Your task to perform on an android device: Is it going to rain tomorrow? Image 0: 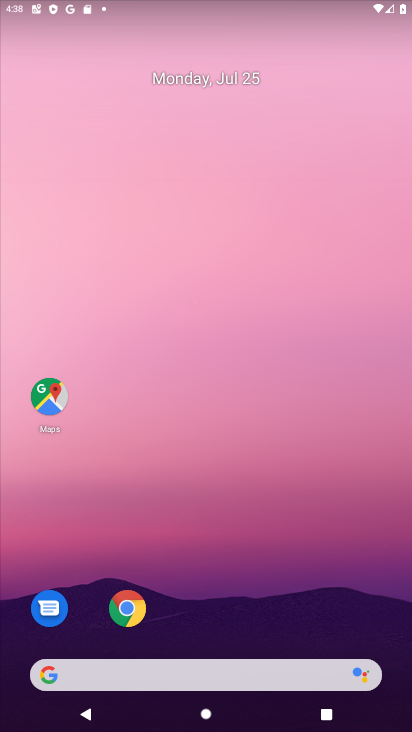
Step 0: press home button
Your task to perform on an android device: Is it going to rain tomorrow? Image 1: 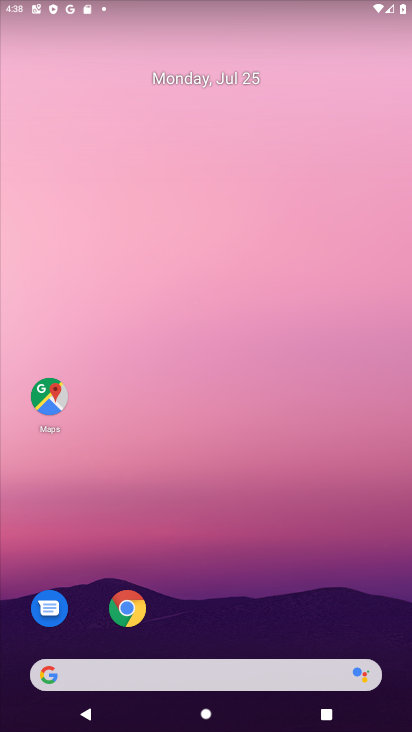
Step 1: drag from (205, 630) to (242, 1)
Your task to perform on an android device: Is it going to rain tomorrow? Image 2: 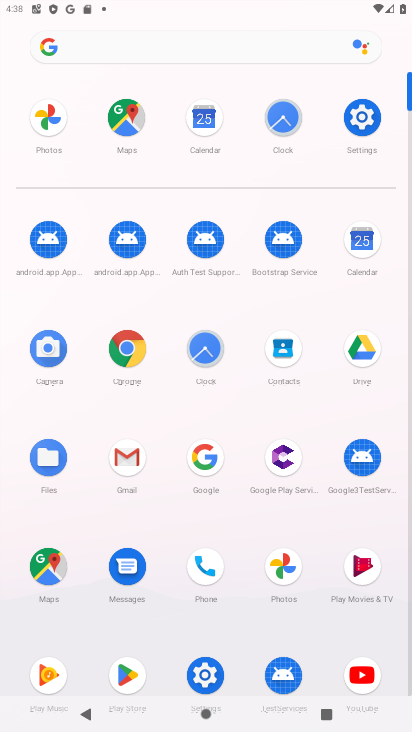
Step 2: click (202, 453)
Your task to perform on an android device: Is it going to rain tomorrow? Image 3: 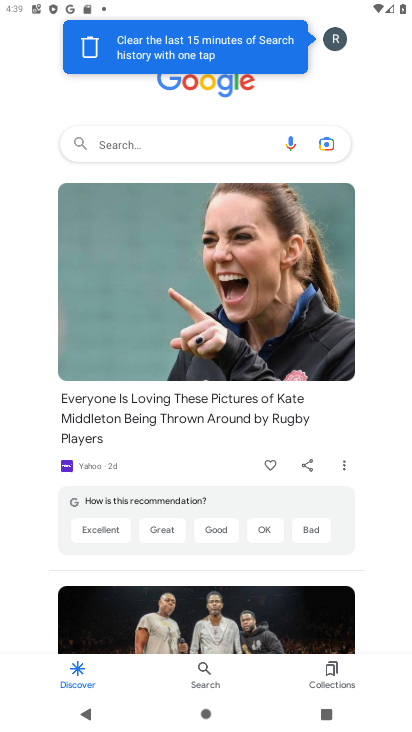
Step 3: click (175, 137)
Your task to perform on an android device: Is it going to rain tomorrow? Image 4: 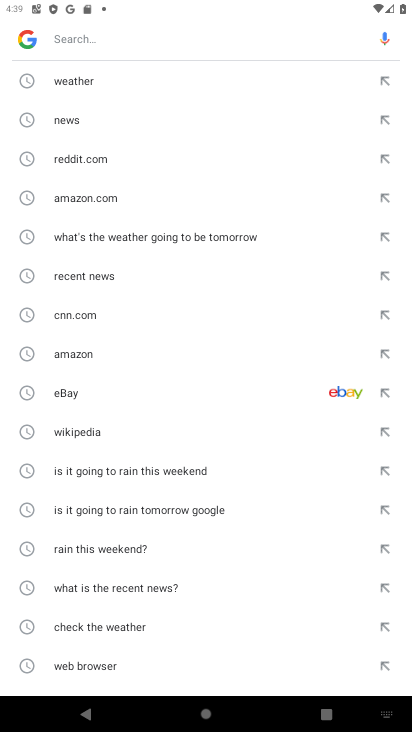
Step 4: click (85, 73)
Your task to perform on an android device: Is it going to rain tomorrow? Image 5: 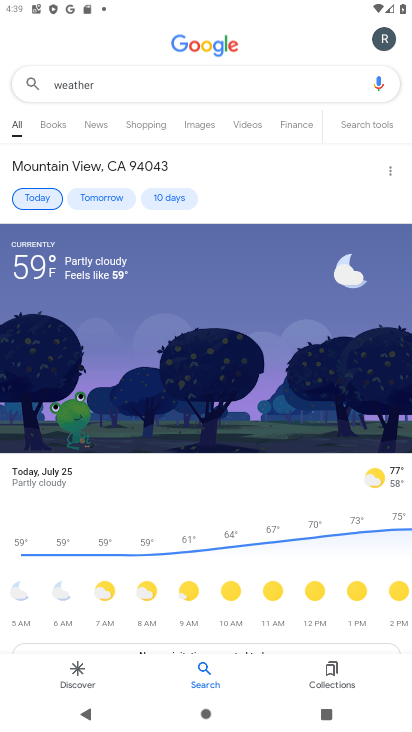
Step 5: task complete